Your task to perform on an android device: Go to ESPN.com Image 0: 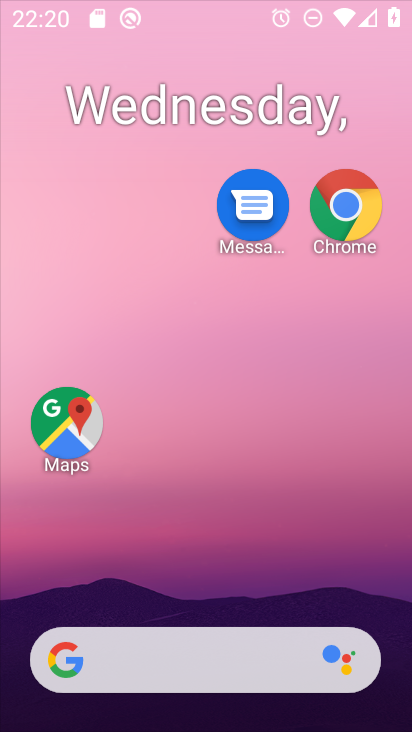
Step 0: click (315, 118)
Your task to perform on an android device: Go to ESPN.com Image 1: 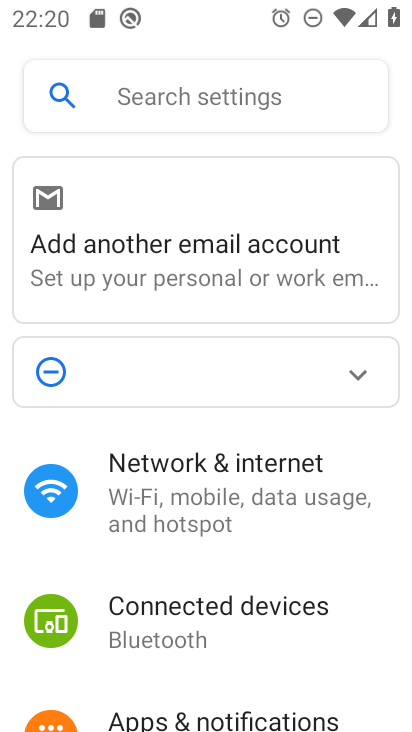
Step 1: press home button
Your task to perform on an android device: Go to ESPN.com Image 2: 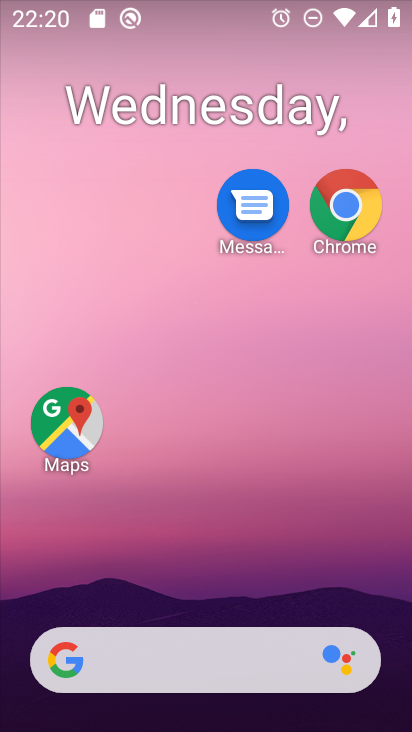
Step 2: click (346, 216)
Your task to perform on an android device: Go to ESPN.com Image 3: 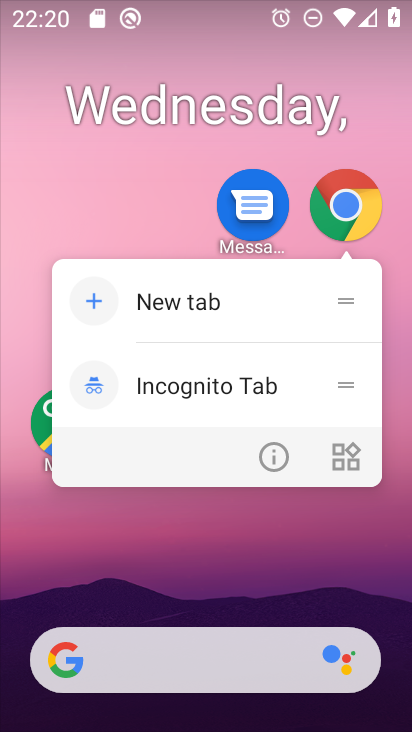
Step 3: click (264, 458)
Your task to perform on an android device: Go to ESPN.com Image 4: 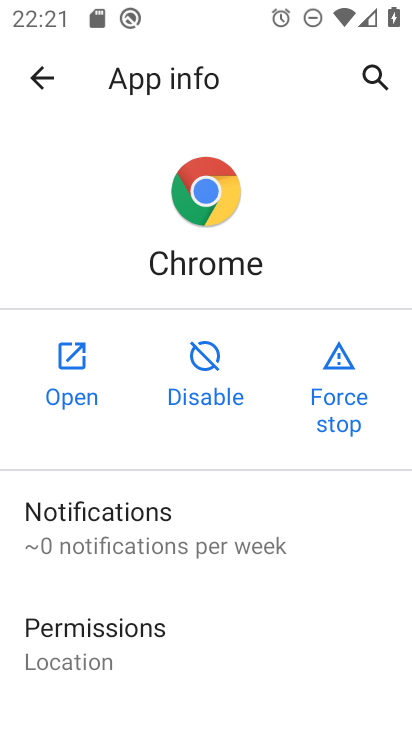
Step 4: click (73, 358)
Your task to perform on an android device: Go to ESPN.com Image 5: 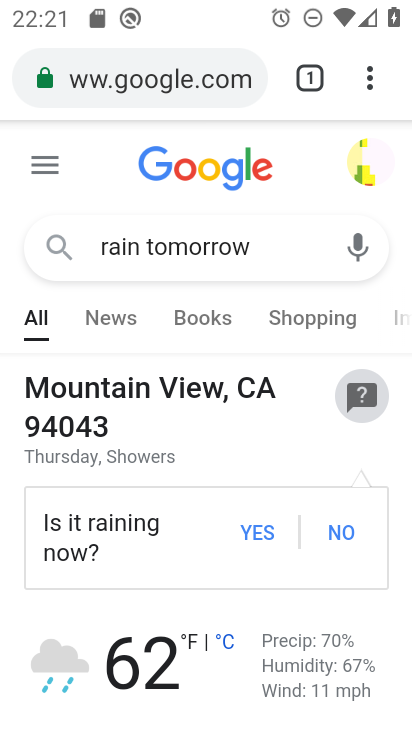
Step 5: click (141, 70)
Your task to perform on an android device: Go to ESPN.com Image 6: 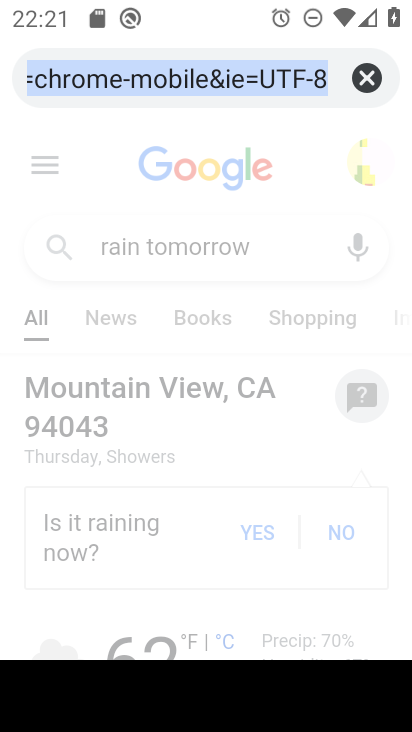
Step 6: click (361, 78)
Your task to perform on an android device: Go to ESPN.com Image 7: 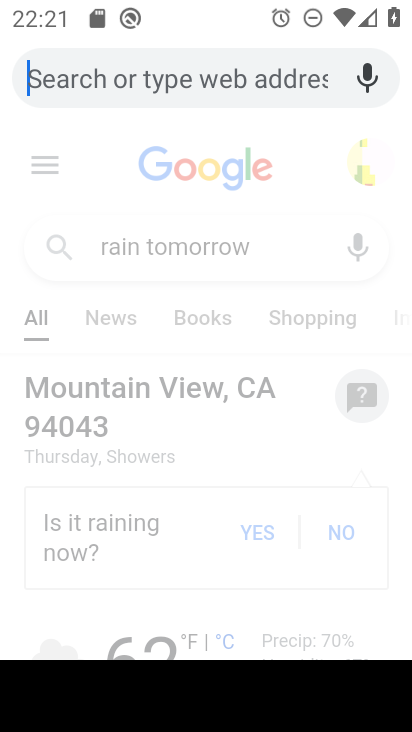
Step 7: type "espn"
Your task to perform on an android device: Go to ESPN.com Image 8: 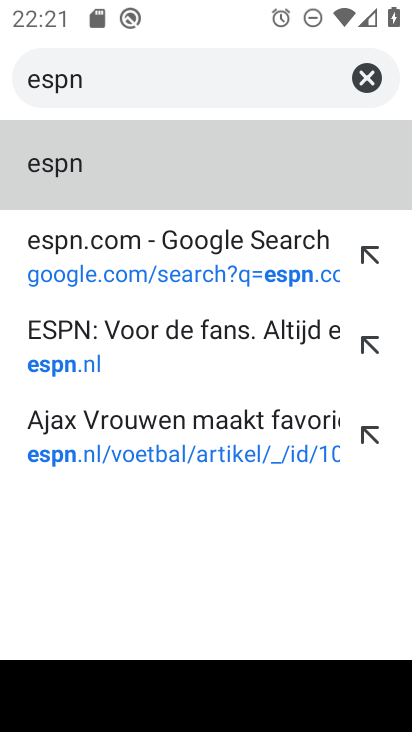
Step 8: click (68, 162)
Your task to perform on an android device: Go to ESPN.com Image 9: 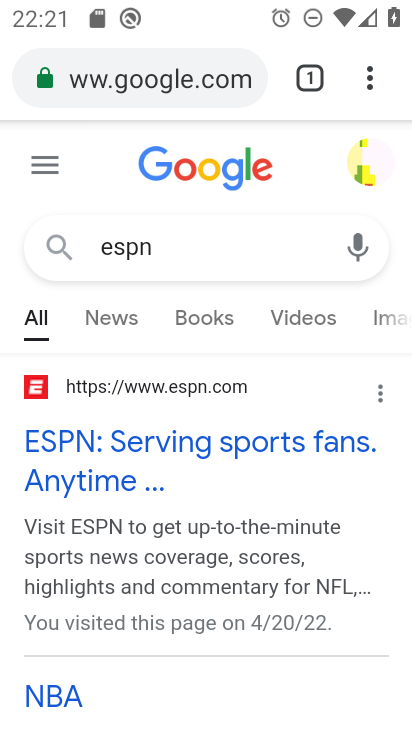
Step 9: click (114, 452)
Your task to perform on an android device: Go to ESPN.com Image 10: 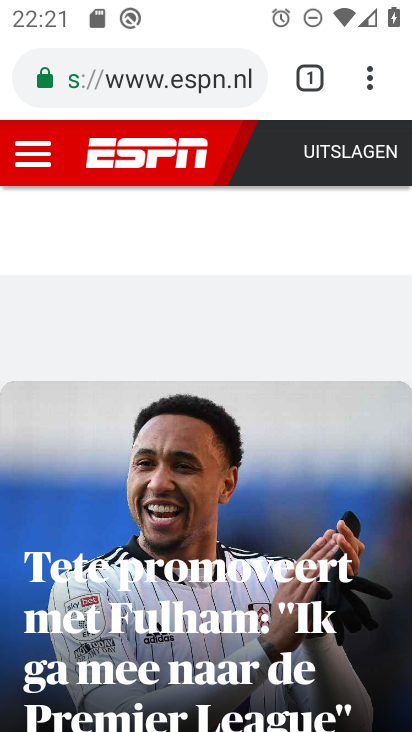
Step 10: task complete